Your task to perform on an android device: Open Chrome and go to the settings page Image 0: 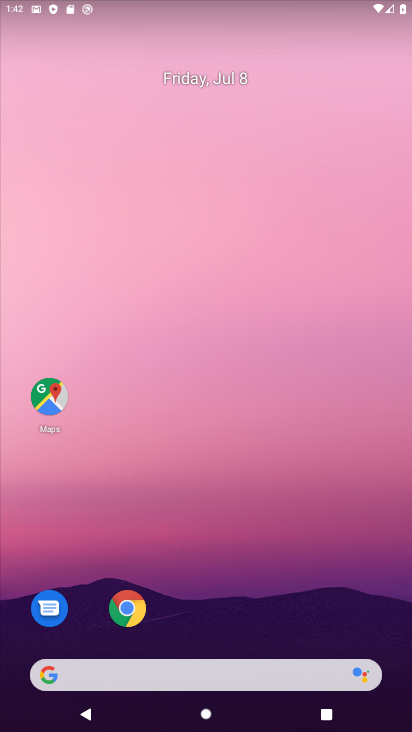
Step 0: click (125, 605)
Your task to perform on an android device: Open Chrome and go to the settings page Image 1: 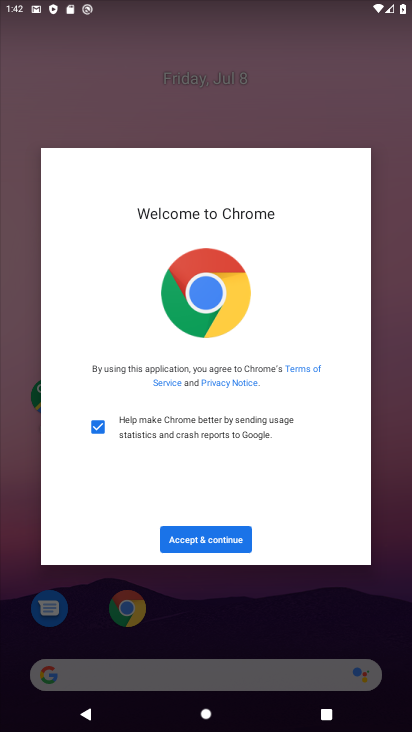
Step 1: click (208, 546)
Your task to perform on an android device: Open Chrome and go to the settings page Image 2: 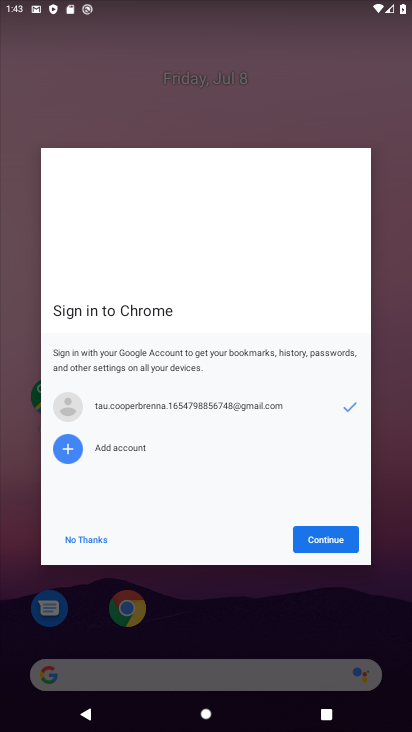
Step 2: click (309, 534)
Your task to perform on an android device: Open Chrome and go to the settings page Image 3: 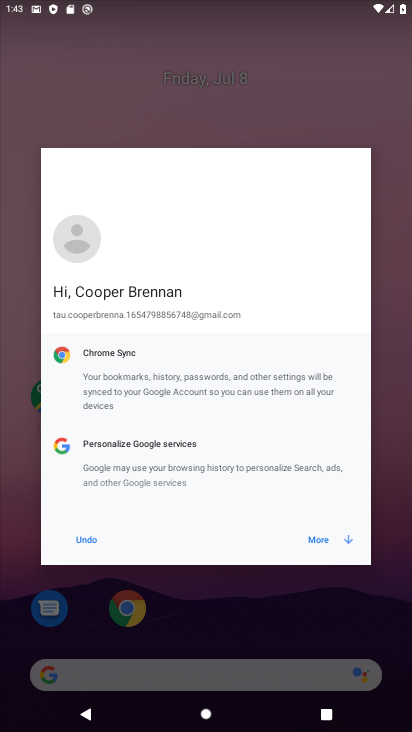
Step 3: click (309, 534)
Your task to perform on an android device: Open Chrome and go to the settings page Image 4: 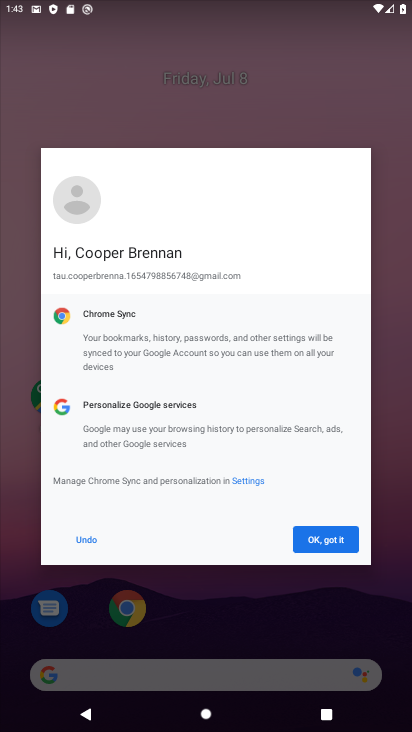
Step 4: click (309, 534)
Your task to perform on an android device: Open Chrome and go to the settings page Image 5: 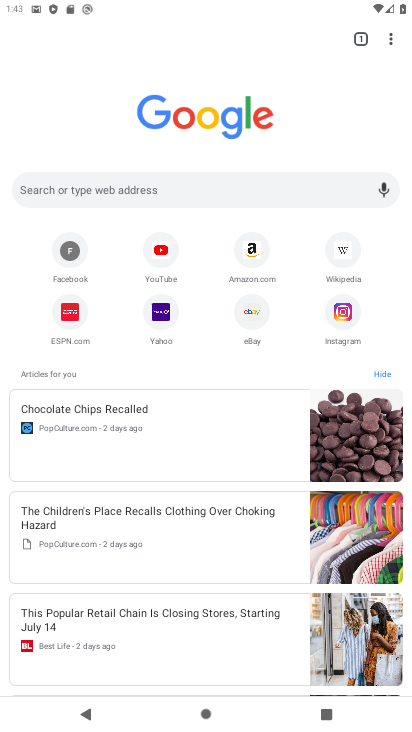
Step 5: click (391, 42)
Your task to perform on an android device: Open Chrome and go to the settings page Image 6: 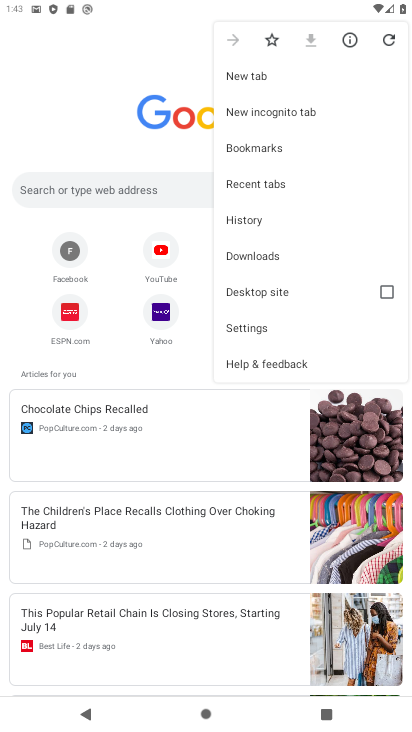
Step 6: click (269, 334)
Your task to perform on an android device: Open Chrome and go to the settings page Image 7: 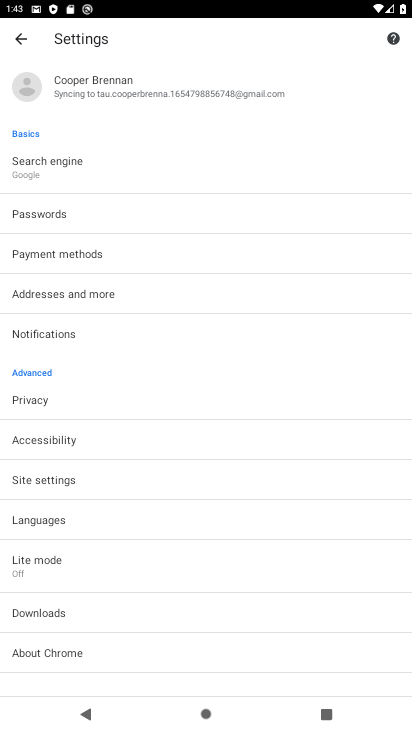
Step 7: task complete